Your task to perform on an android device: toggle wifi Image 0: 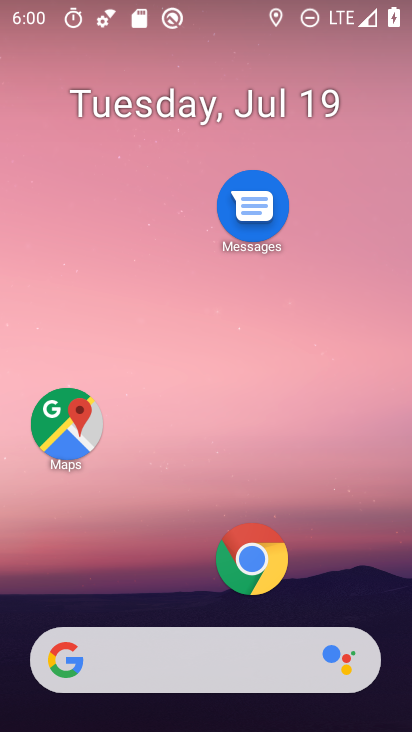
Step 0: drag from (154, 67) to (153, 633)
Your task to perform on an android device: toggle wifi Image 1: 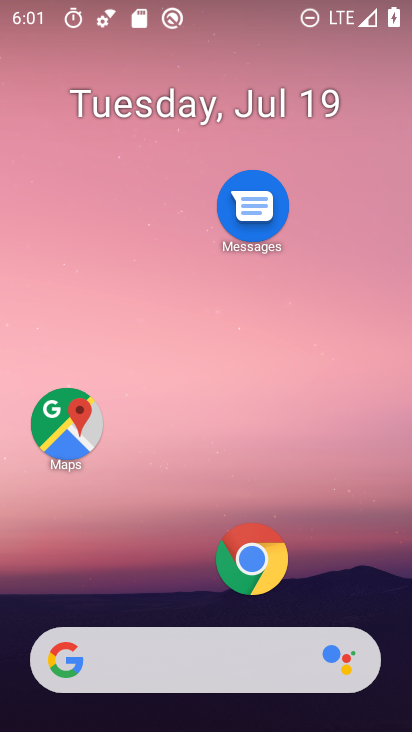
Step 1: drag from (131, 17) to (191, 563)
Your task to perform on an android device: toggle wifi Image 2: 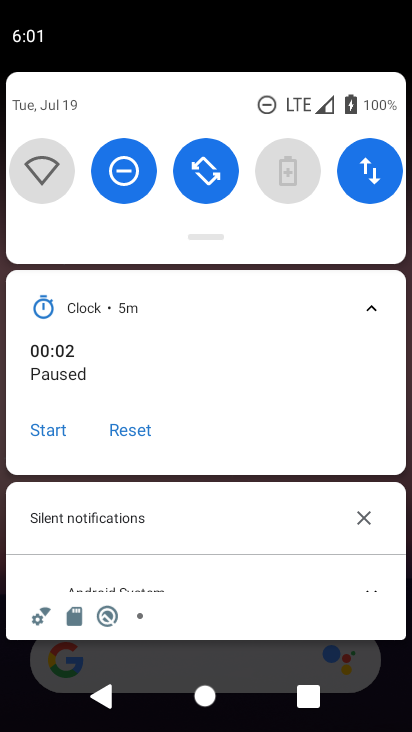
Step 2: click (62, 165)
Your task to perform on an android device: toggle wifi Image 3: 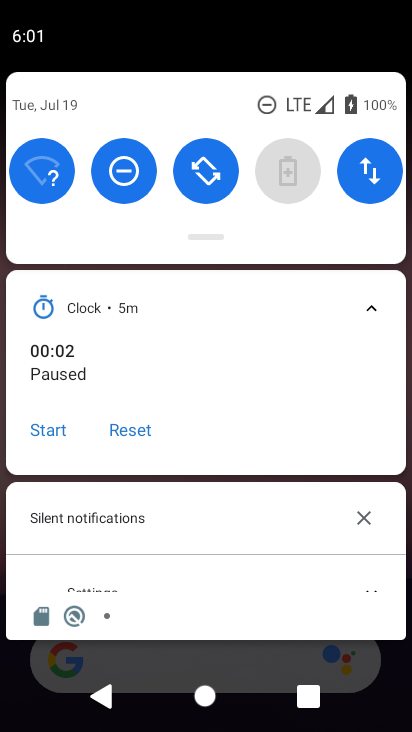
Step 3: task complete